Your task to perform on an android device: Open Chrome and go to settings Image 0: 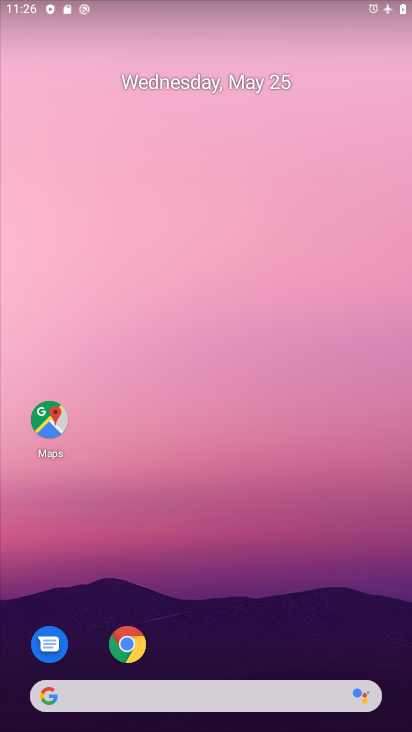
Step 0: click (125, 646)
Your task to perform on an android device: Open Chrome and go to settings Image 1: 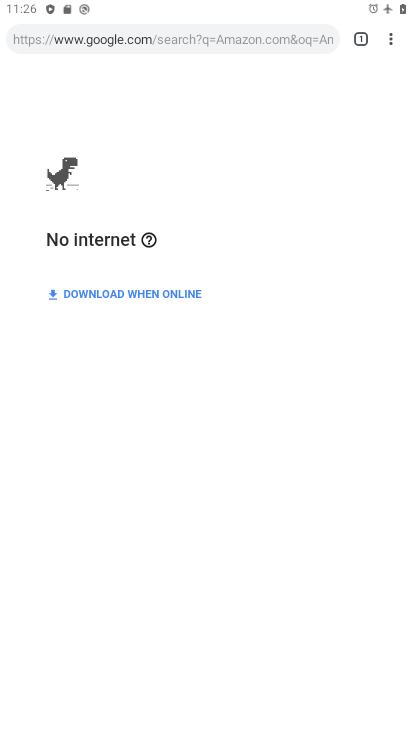
Step 1: click (391, 40)
Your task to perform on an android device: Open Chrome and go to settings Image 2: 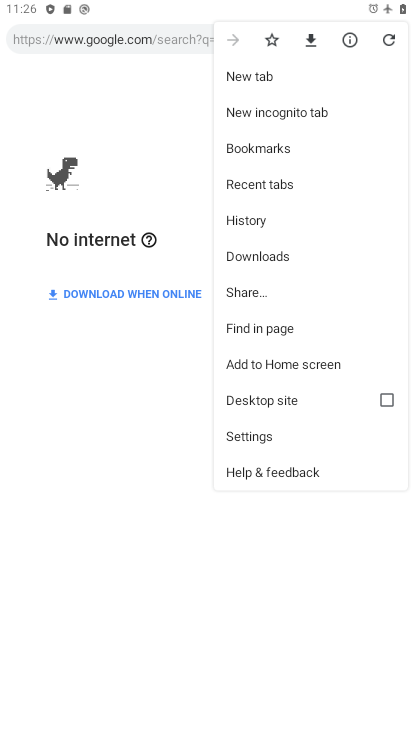
Step 2: click (250, 436)
Your task to perform on an android device: Open Chrome and go to settings Image 3: 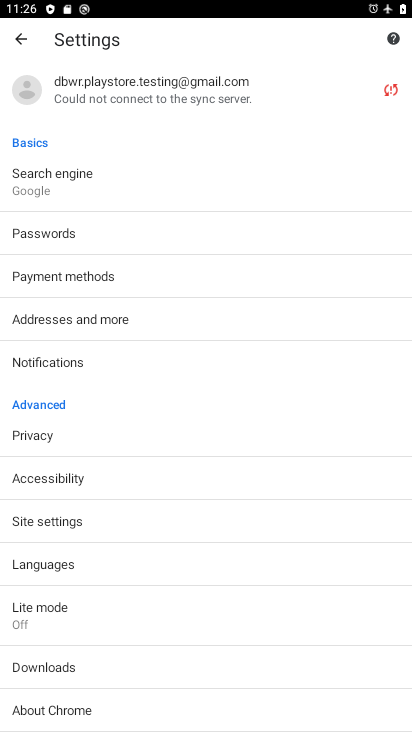
Step 3: task complete